Your task to perform on an android device: turn off translation in the chrome app Image 0: 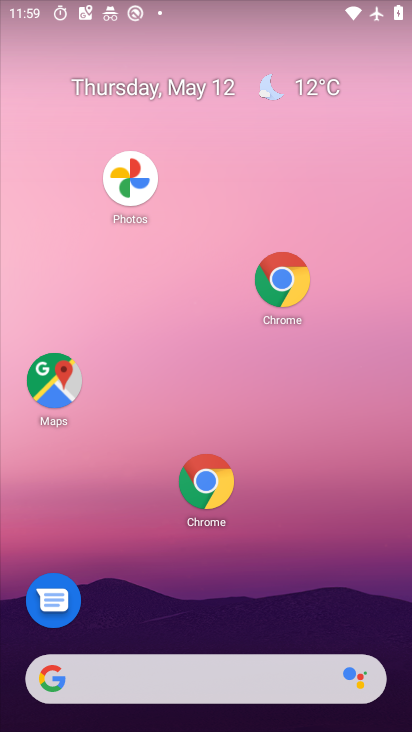
Step 0: drag from (311, 596) to (120, 194)
Your task to perform on an android device: turn off translation in the chrome app Image 1: 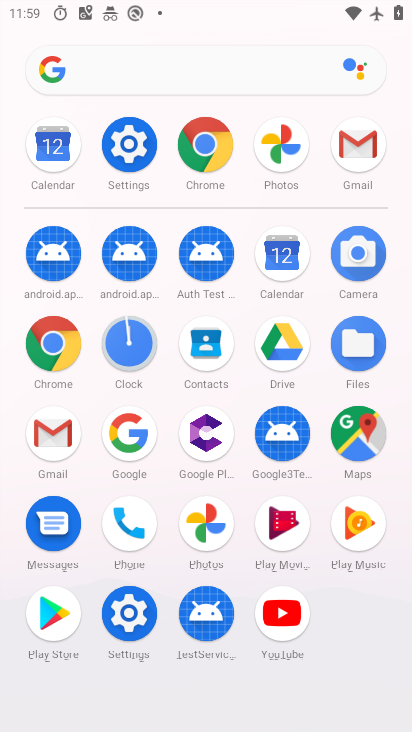
Step 1: click (198, 143)
Your task to perform on an android device: turn off translation in the chrome app Image 2: 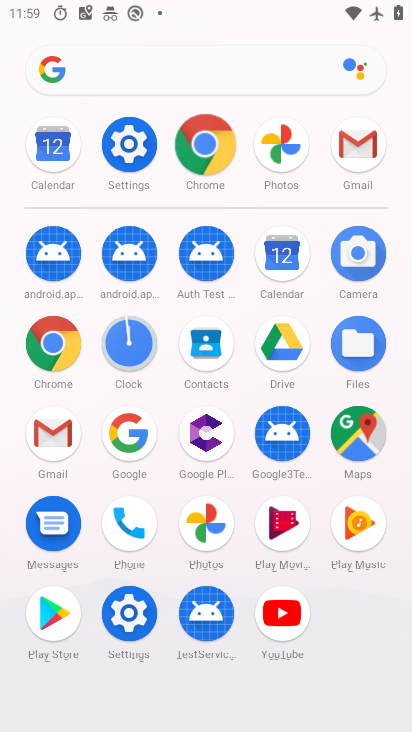
Step 2: click (199, 144)
Your task to perform on an android device: turn off translation in the chrome app Image 3: 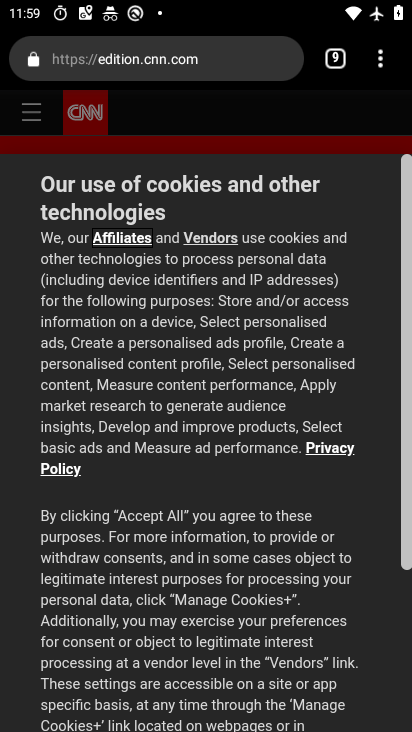
Step 3: drag from (379, 71) to (149, 621)
Your task to perform on an android device: turn off translation in the chrome app Image 4: 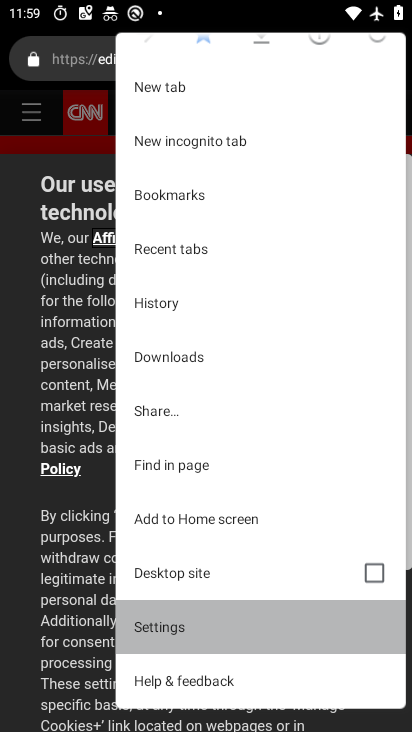
Step 4: click (149, 621)
Your task to perform on an android device: turn off translation in the chrome app Image 5: 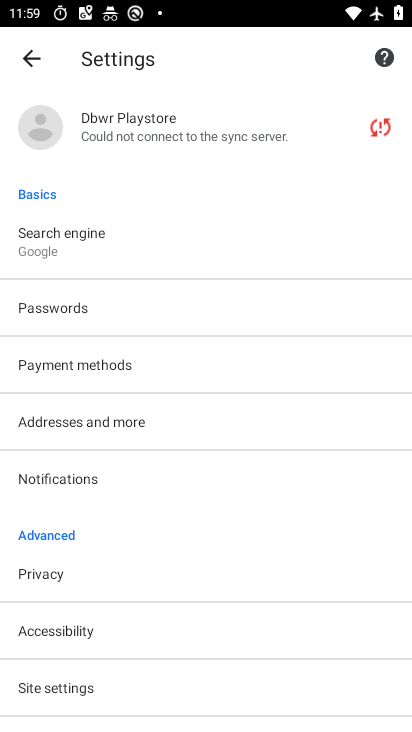
Step 5: drag from (132, 479) to (131, 174)
Your task to perform on an android device: turn off translation in the chrome app Image 6: 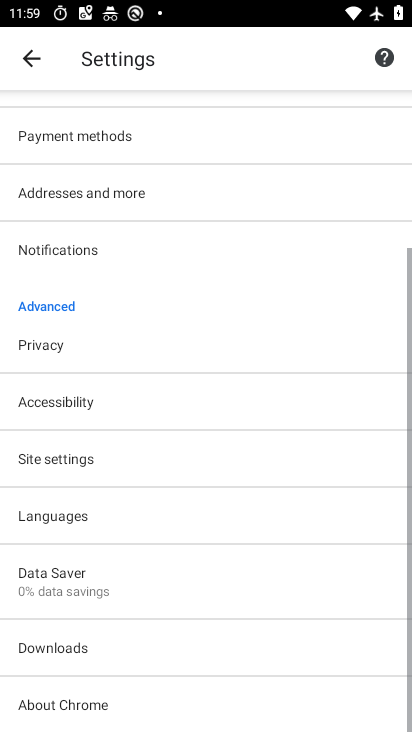
Step 6: drag from (164, 533) to (81, 73)
Your task to perform on an android device: turn off translation in the chrome app Image 7: 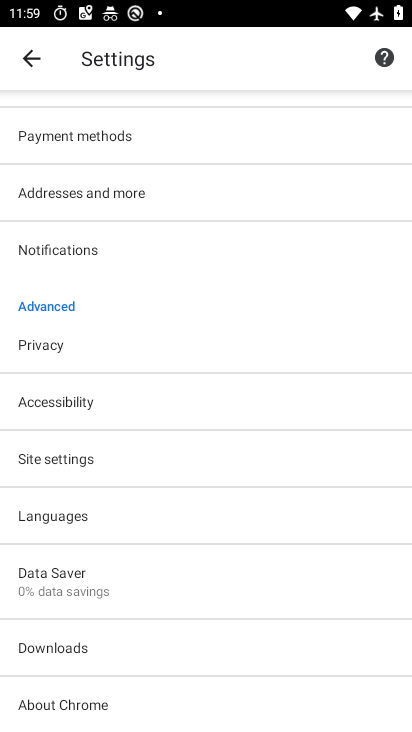
Step 7: click (41, 513)
Your task to perform on an android device: turn off translation in the chrome app Image 8: 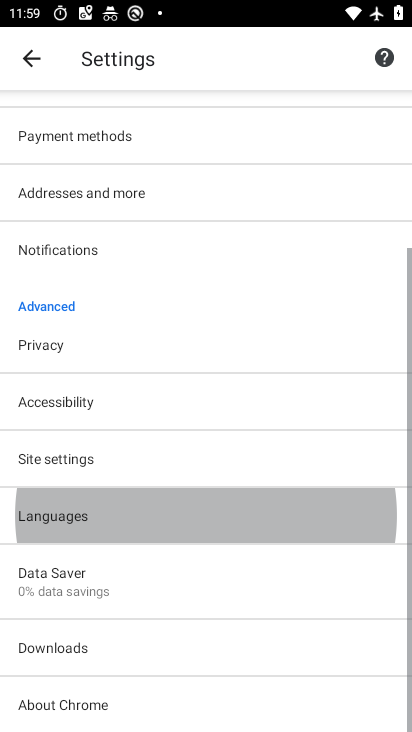
Step 8: click (41, 513)
Your task to perform on an android device: turn off translation in the chrome app Image 9: 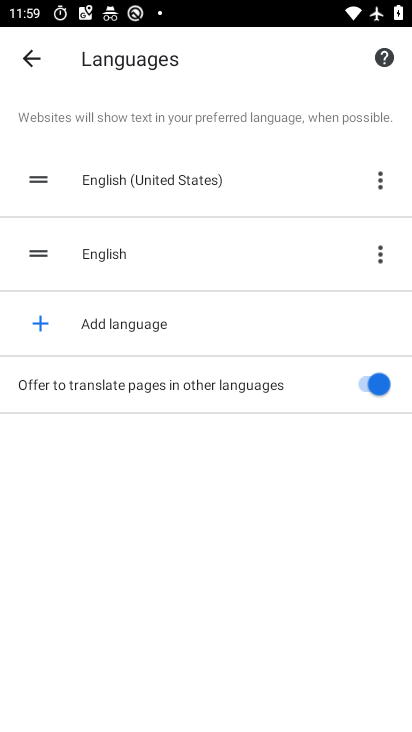
Step 9: click (374, 385)
Your task to perform on an android device: turn off translation in the chrome app Image 10: 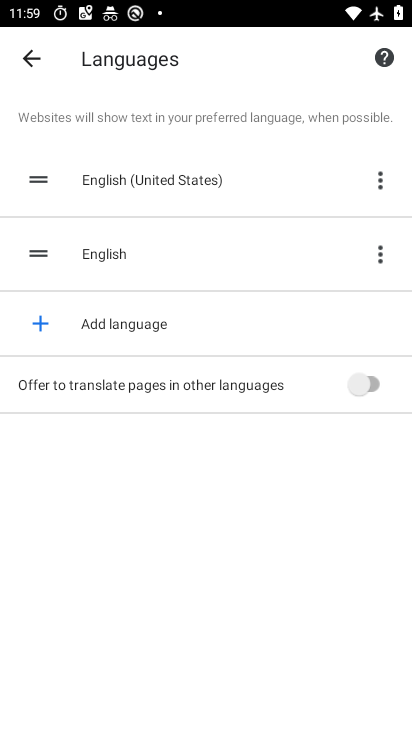
Step 10: task complete